Your task to perform on an android device: turn on notifications settings in the gmail app Image 0: 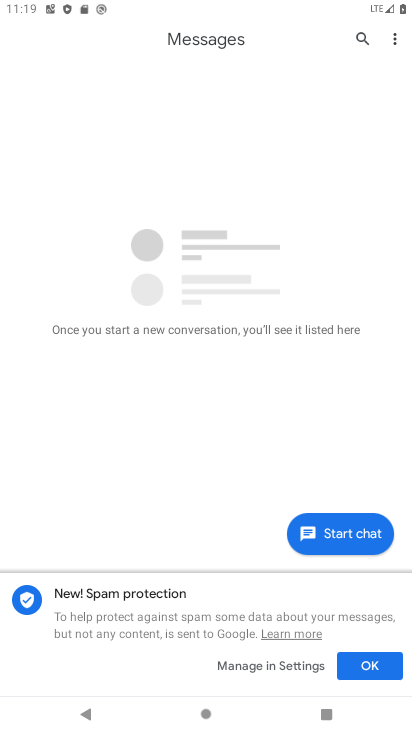
Step 0: press home button
Your task to perform on an android device: turn on notifications settings in the gmail app Image 1: 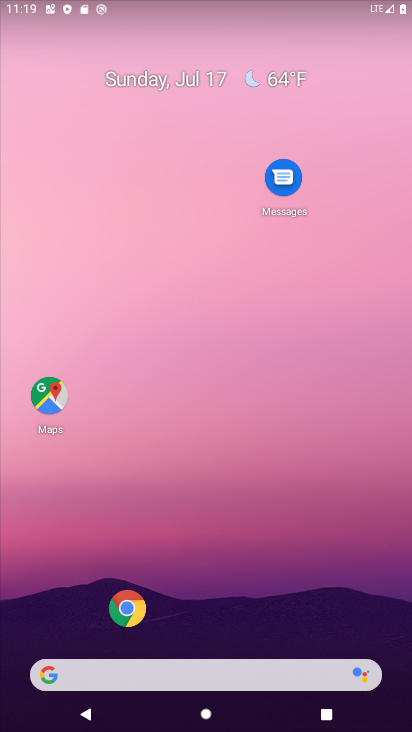
Step 1: drag from (35, 689) to (148, 229)
Your task to perform on an android device: turn on notifications settings in the gmail app Image 2: 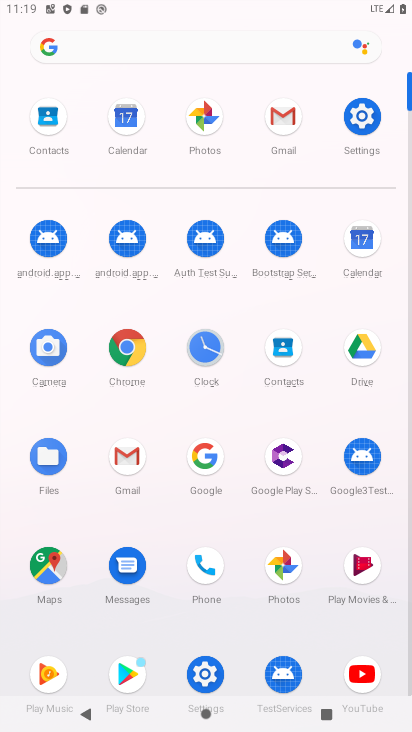
Step 2: click (136, 447)
Your task to perform on an android device: turn on notifications settings in the gmail app Image 3: 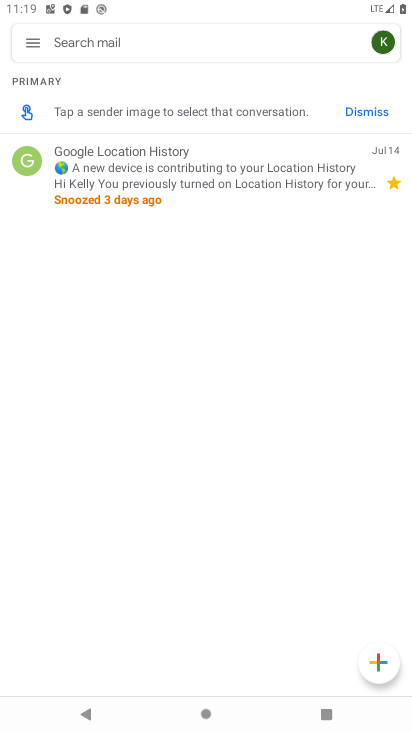
Step 3: click (22, 42)
Your task to perform on an android device: turn on notifications settings in the gmail app Image 4: 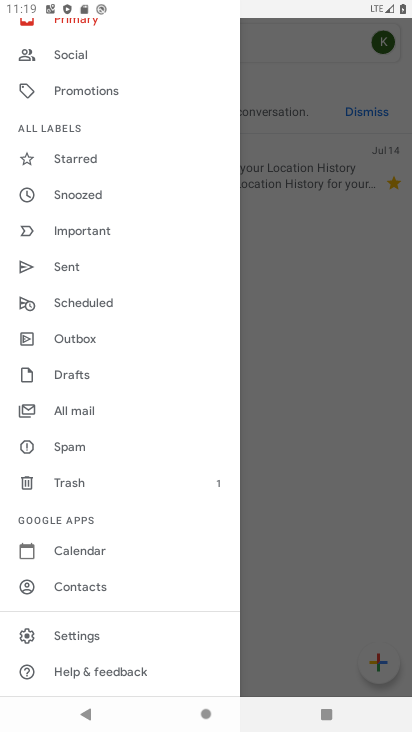
Step 4: click (97, 638)
Your task to perform on an android device: turn on notifications settings in the gmail app Image 5: 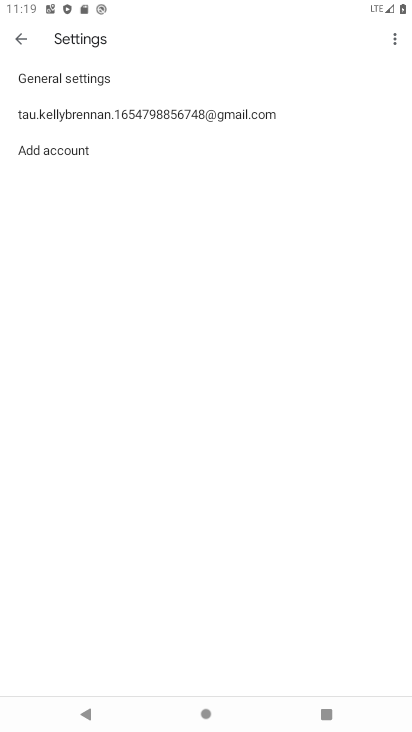
Step 5: click (72, 73)
Your task to perform on an android device: turn on notifications settings in the gmail app Image 6: 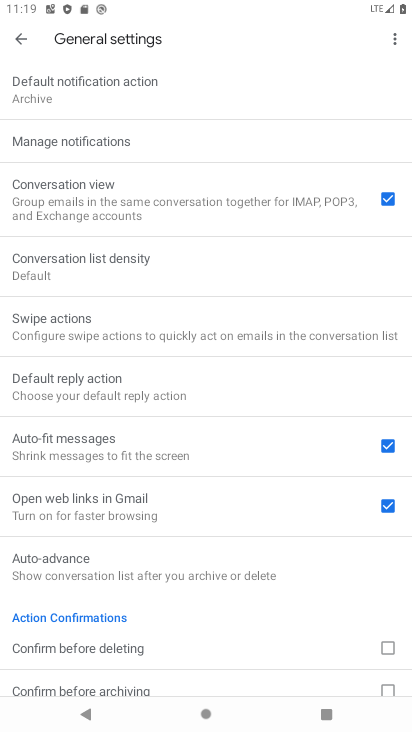
Step 6: click (65, 83)
Your task to perform on an android device: turn on notifications settings in the gmail app Image 7: 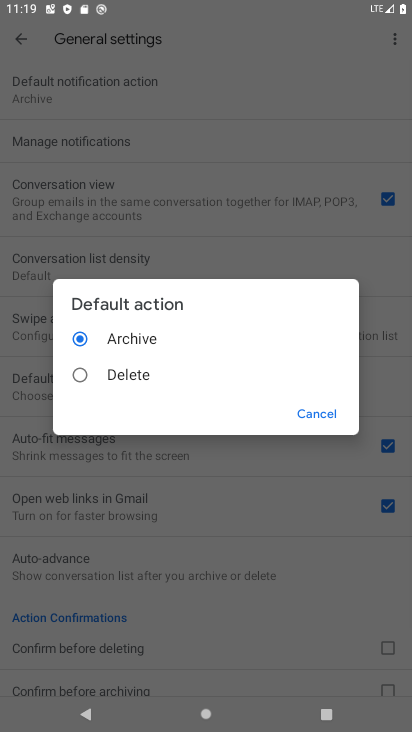
Step 7: click (65, 83)
Your task to perform on an android device: turn on notifications settings in the gmail app Image 8: 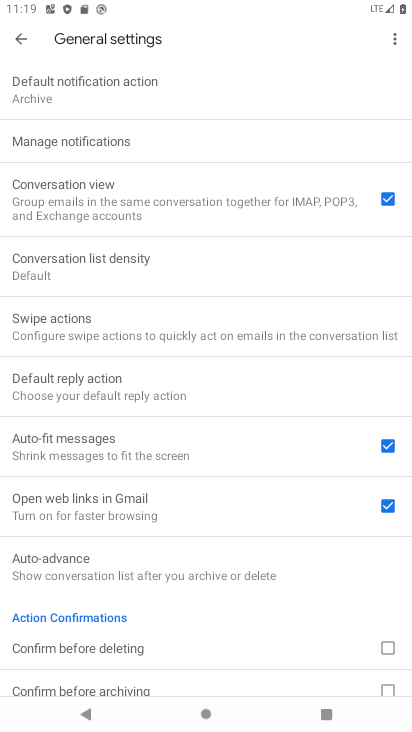
Step 8: click (99, 125)
Your task to perform on an android device: turn on notifications settings in the gmail app Image 9: 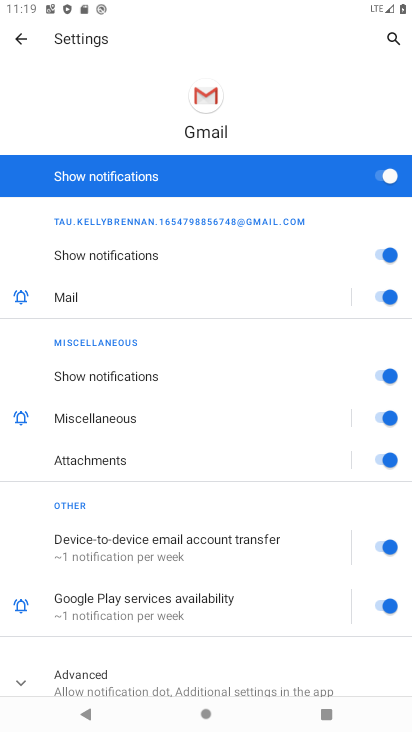
Step 9: task complete